Your task to perform on an android device: Open the calendar and show me this week's events? Image 0: 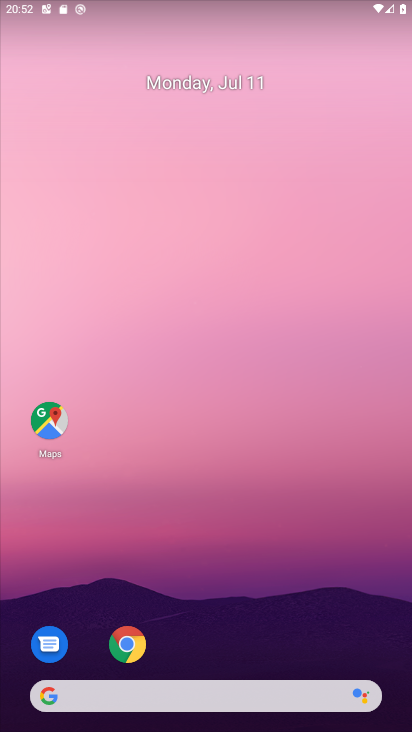
Step 0: drag from (205, 579) to (149, 34)
Your task to perform on an android device: Open the calendar and show me this week's events? Image 1: 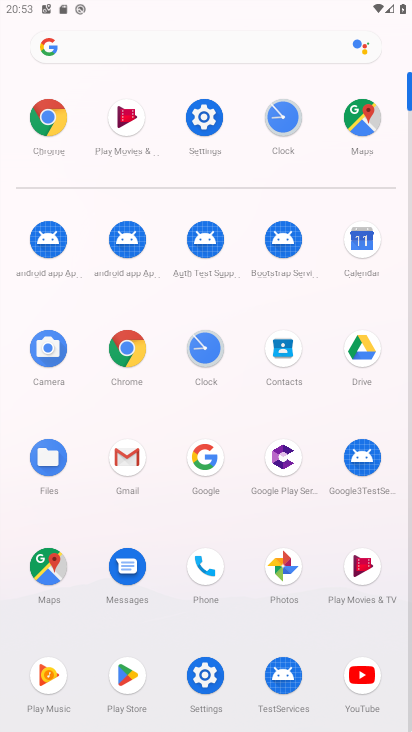
Step 1: click (362, 234)
Your task to perform on an android device: Open the calendar and show me this week's events? Image 2: 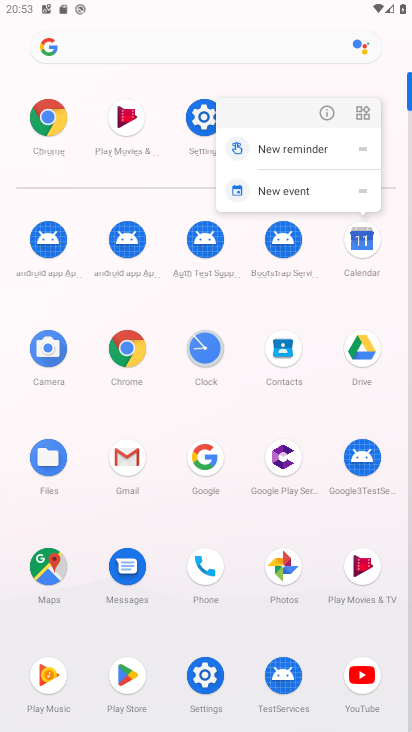
Step 2: click (362, 234)
Your task to perform on an android device: Open the calendar and show me this week's events? Image 3: 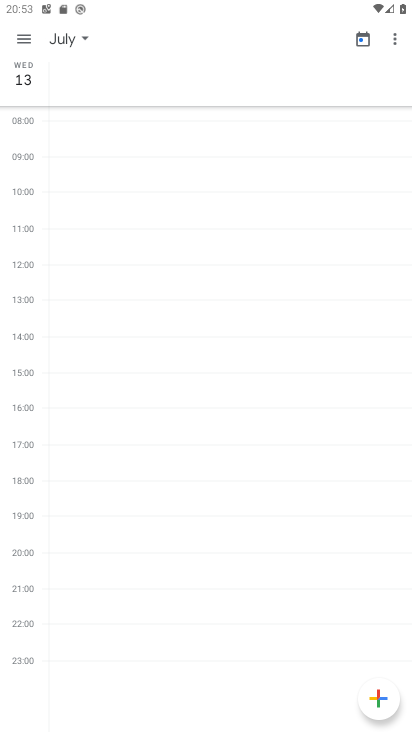
Step 3: click (20, 29)
Your task to perform on an android device: Open the calendar and show me this week's events? Image 4: 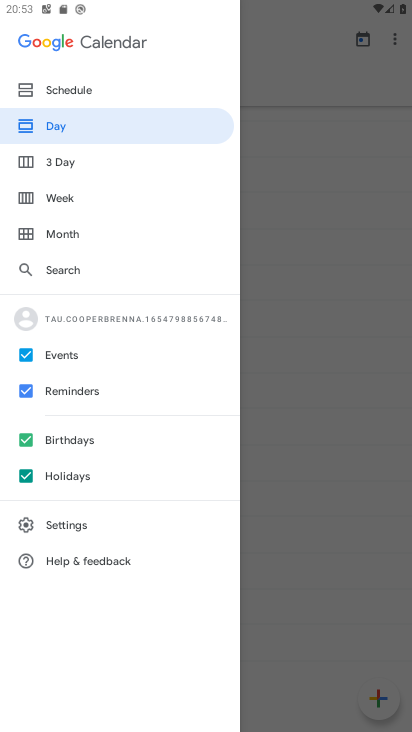
Step 4: click (78, 191)
Your task to perform on an android device: Open the calendar and show me this week's events? Image 5: 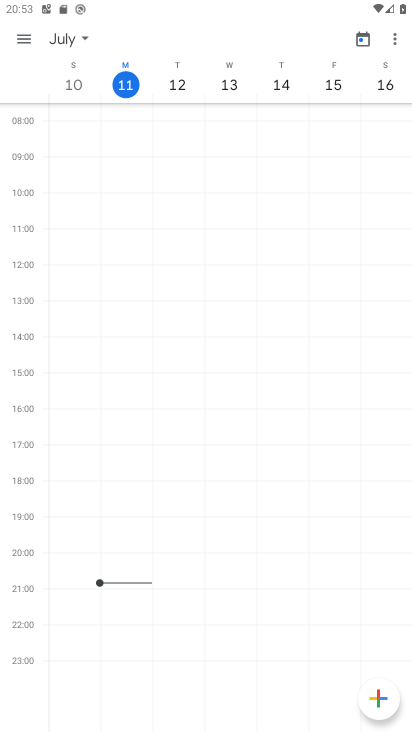
Step 5: task complete